Your task to perform on an android device: snooze an email in the gmail app Image 0: 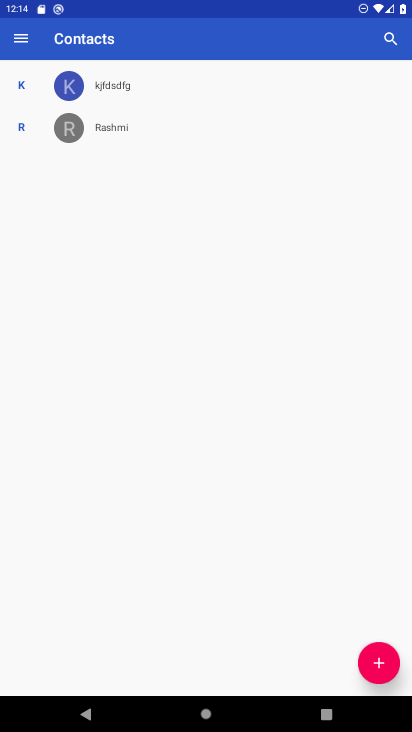
Step 0: press home button
Your task to perform on an android device: snooze an email in the gmail app Image 1: 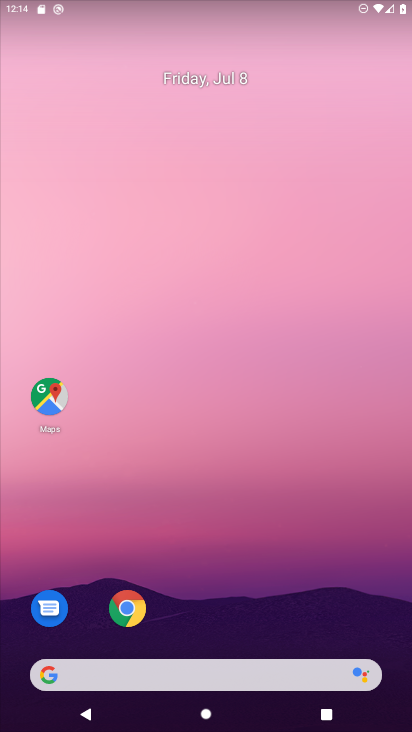
Step 1: drag from (230, 723) to (194, 148)
Your task to perform on an android device: snooze an email in the gmail app Image 2: 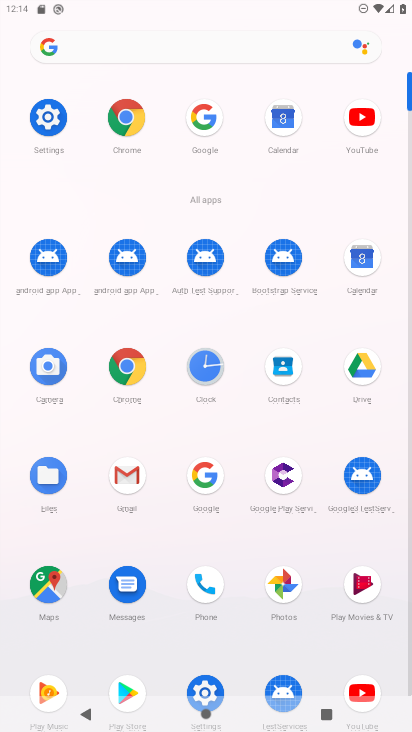
Step 2: click (124, 478)
Your task to perform on an android device: snooze an email in the gmail app Image 3: 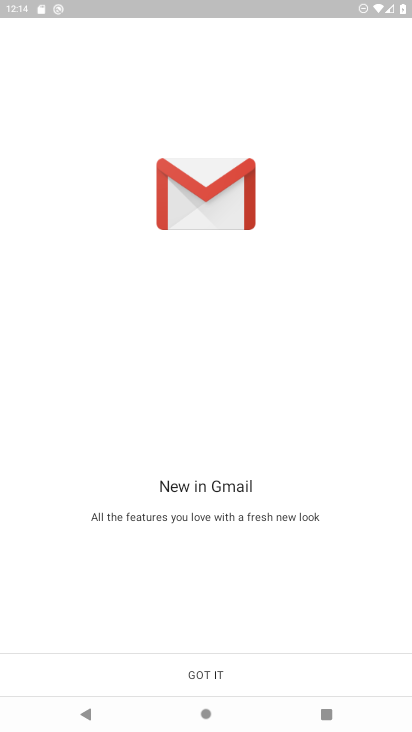
Step 3: click (196, 668)
Your task to perform on an android device: snooze an email in the gmail app Image 4: 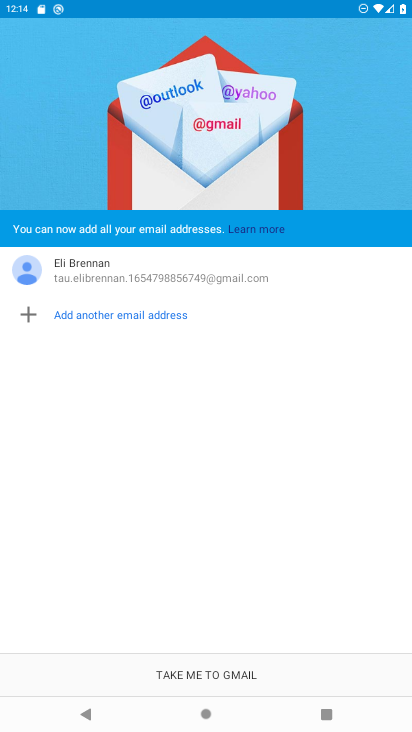
Step 4: click (196, 668)
Your task to perform on an android device: snooze an email in the gmail app Image 5: 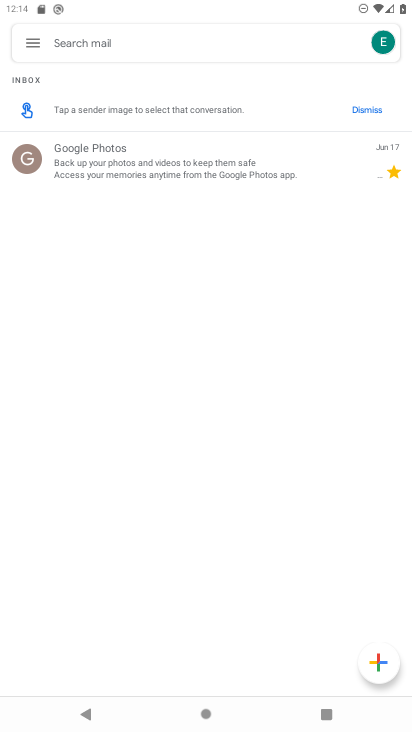
Step 5: click (129, 160)
Your task to perform on an android device: snooze an email in the gmail app Image 6: 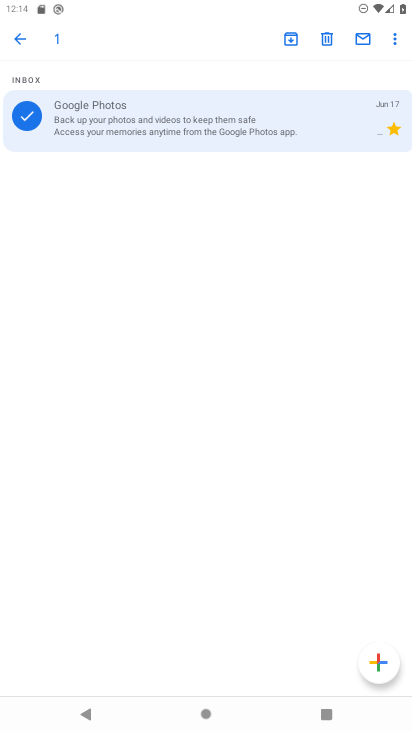
Step 6: click (396, 42)
Your task to perform on an android device: snooze an email in the gmail app Image 7: 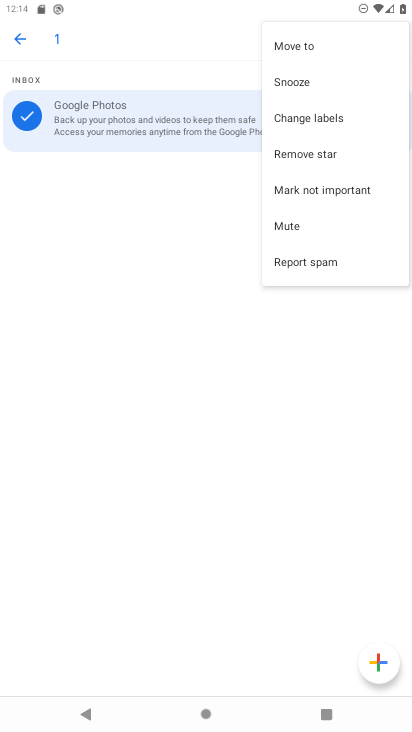
Step 7: click (294, 80)
Your task to perform on an android device: snooze an email in the gmail app Image 8: 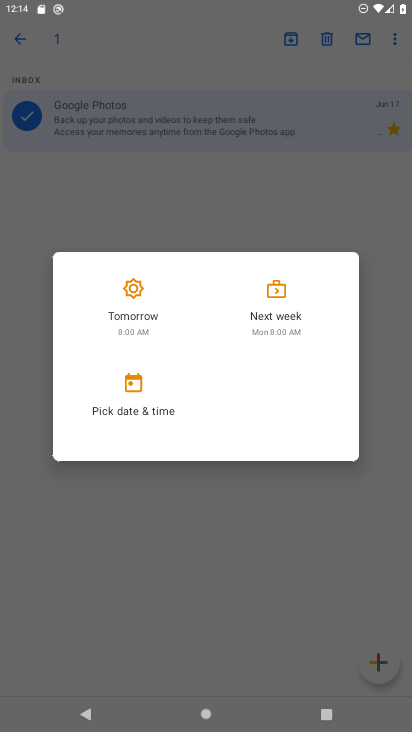
Step 8: click (132, 302)
Your task to perform on an android device: snooze an email in the gmail app Image 9: 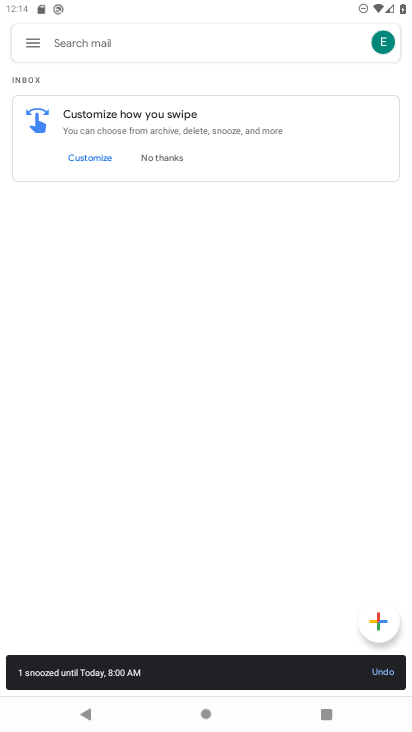
Step 9: task complete